Your task to perform on an android device: Check the weather Image 0: 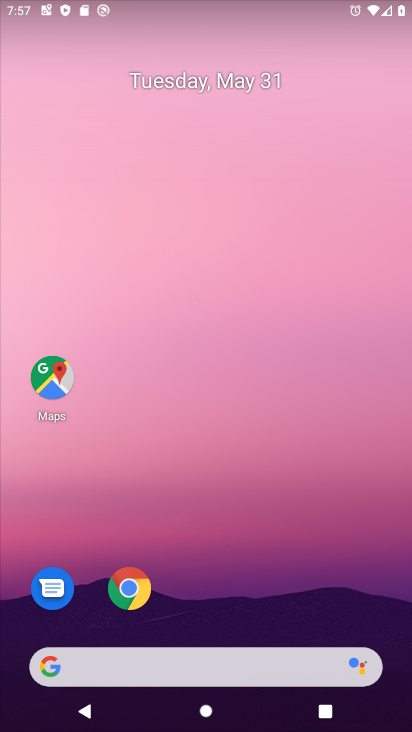
Step 0: drag from (211, 623) to (231, 418)
Your task to perform on an android device: Check the weather Image 1: 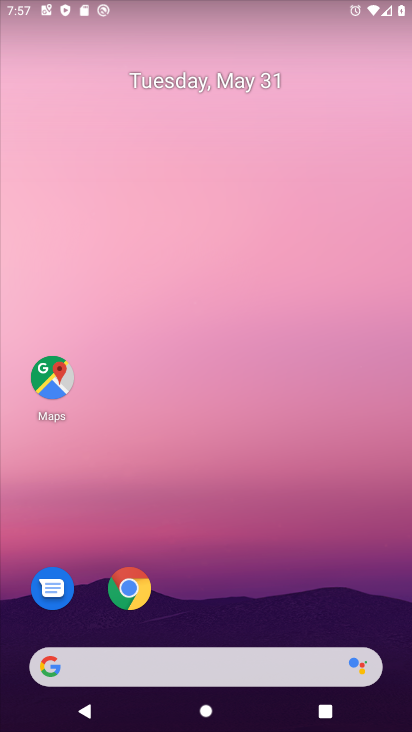
Step 1: click (175, 660)
Your task to perform on an android device: Check the weather Image 2: 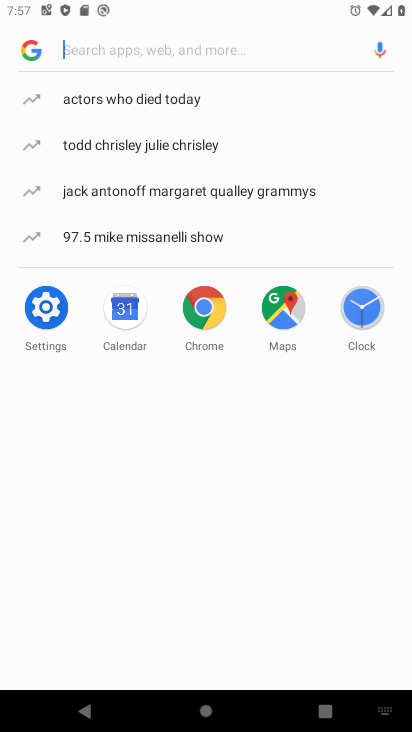
Step 2: type "weather"
Your task to perform on an android device: Check the weather Image 3: 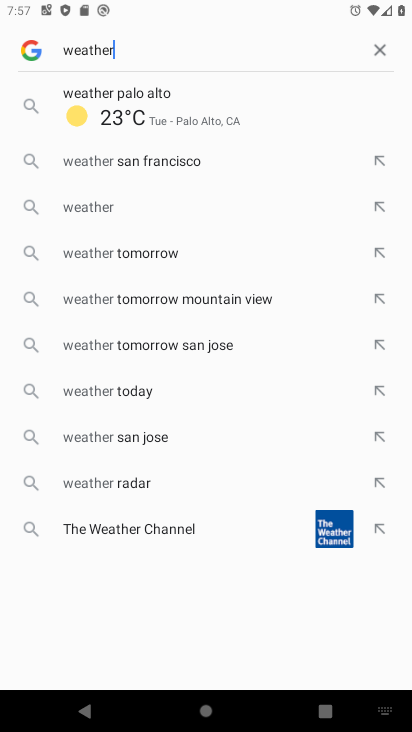
Step 3: click (231, 104)
Your task to perform on an android device: Check the weather Image 4: 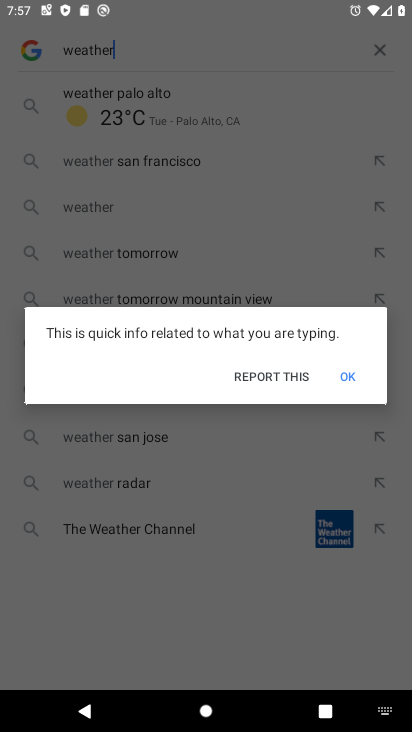
Step 4: click (346, 367)
Your task to perform on an android device: Check the weather Image 5: 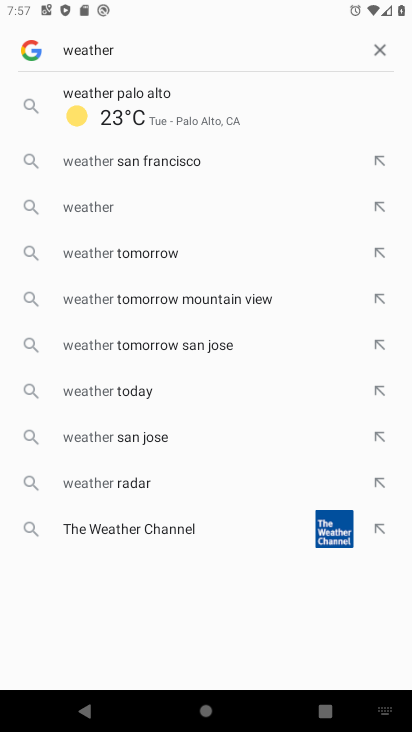
Step 5: click (126, 391)
Your task to perform on an android device: Check the weather Image 6: 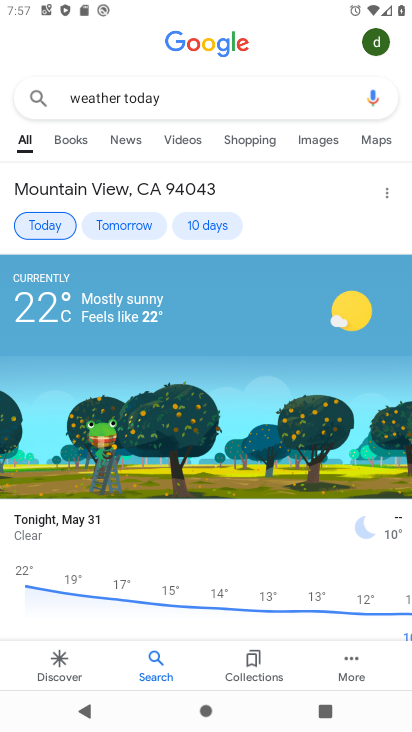
Step 6: task complete